Your task to perform on an android device: Search for seafood restaurants on Google Maps Image 0: 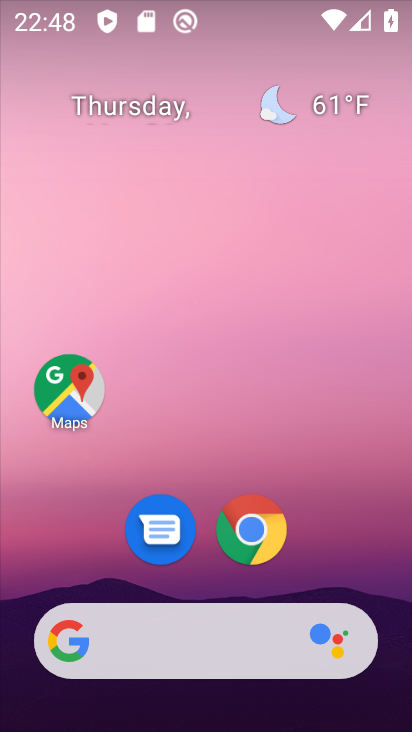
Step 0: click (41, 400)
Your task to perform on an android device: Search for seafood restaurants on Google Maps Image 1: 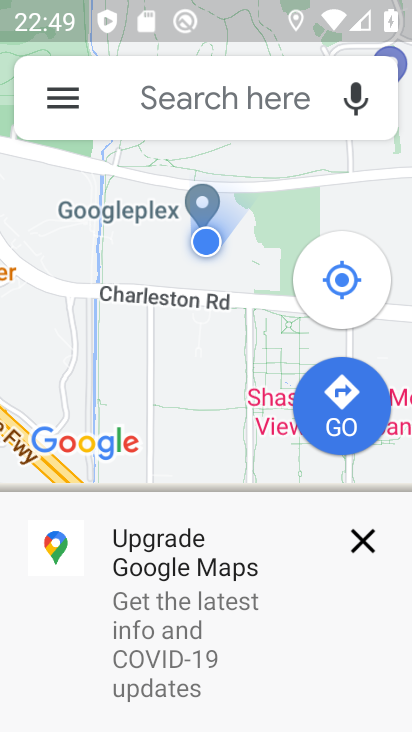
Step 1: click (365, 556)
Your task to perform on an android device: Search for seafood restaurants on Google Maps Image 2: 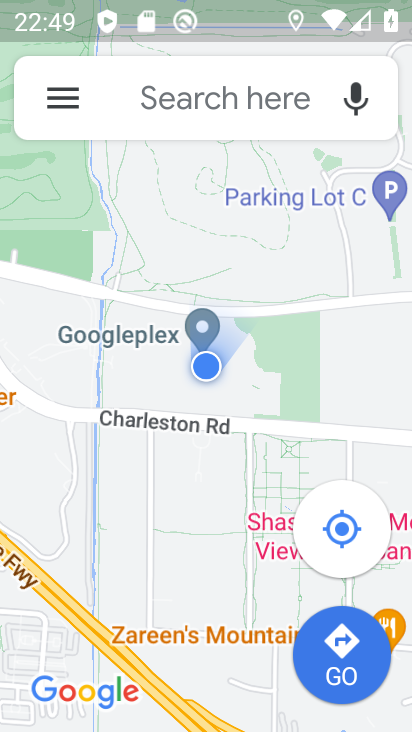
Step 2: click (227, 81)
Your task to perform on an android device: Search for seafood restaurants on Google Maps Image 3: 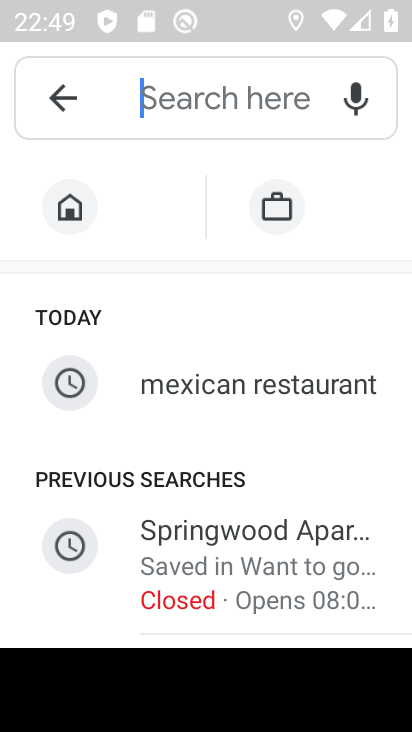
Step 3: type "seafood."
Your task to perform on an android device: Search for seafood restaurants on Google Maps Image 4: 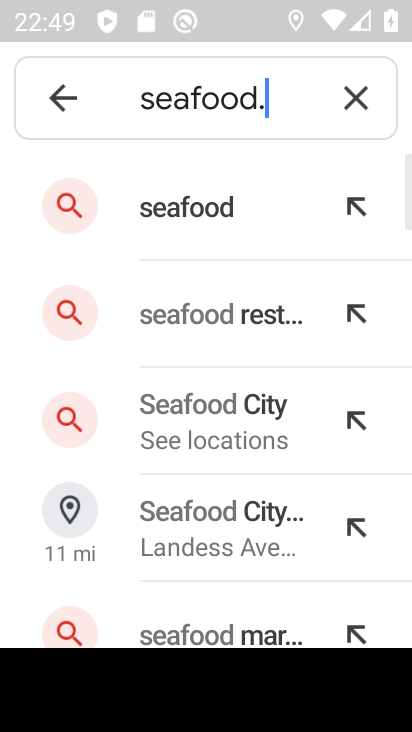
Step 4: click (237, 232)
Your task to perform on an android device: Search for seafood restaurants on Google Maps Image 5: 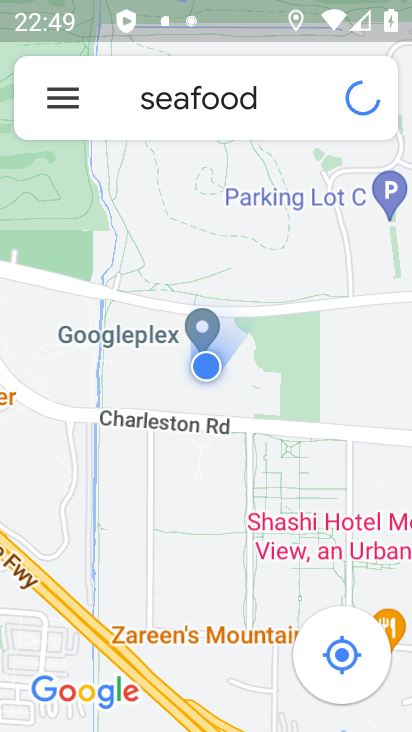
Step 5: task complete